Your task to perform on an android device: Open Yahoo.com Image 0: 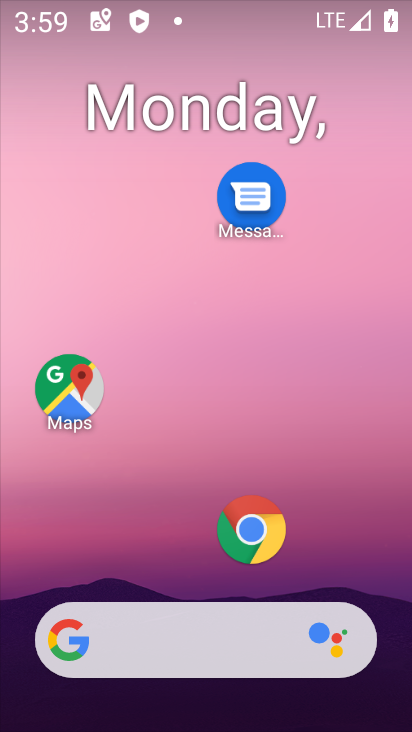
Step 0: click (266, 532)
Your task to perform on an android device: Open Yahoo.com Image 1: 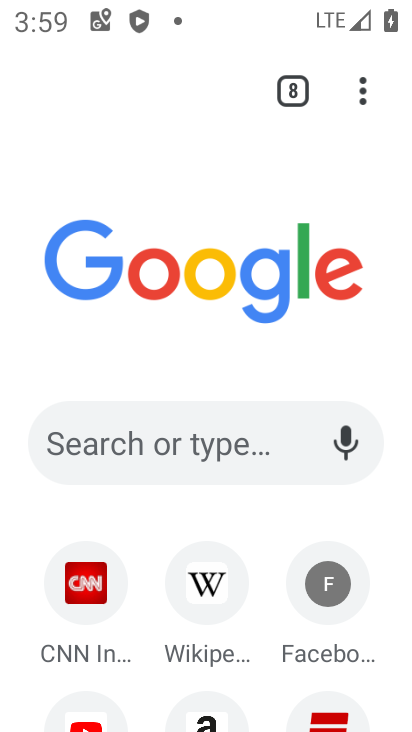
Step 1: click (285, 79)
Your task to perform on an android device: Open Yahoo.com Image 2: 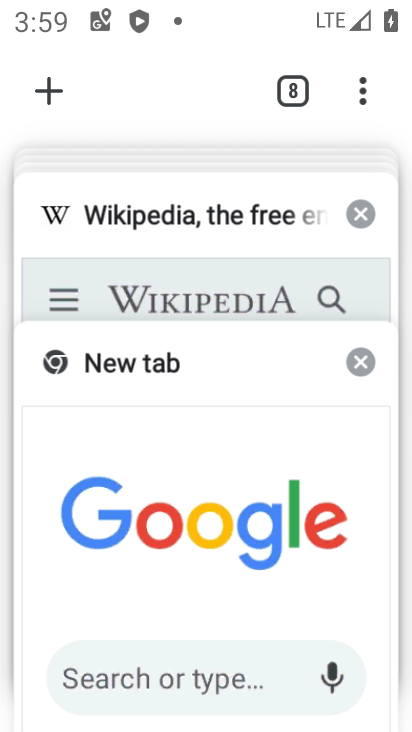
Step 2: click (374, 355)
Your task to perform on an android device: Open Yahoo.com Image 3: 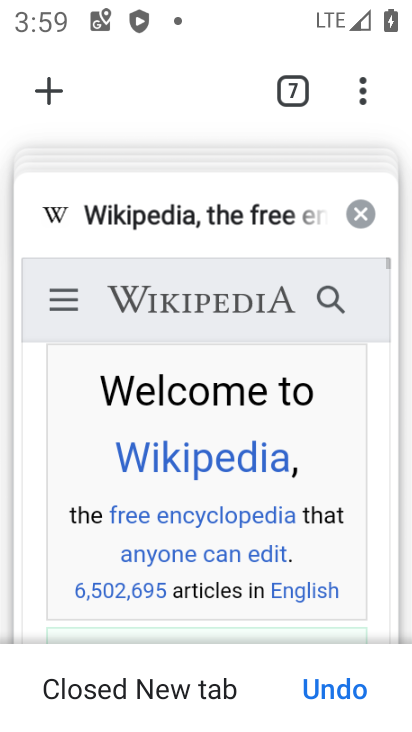
Step 3: click (365, 212)
Your task to perform on an android device: Open Yahoo.com Image 4: 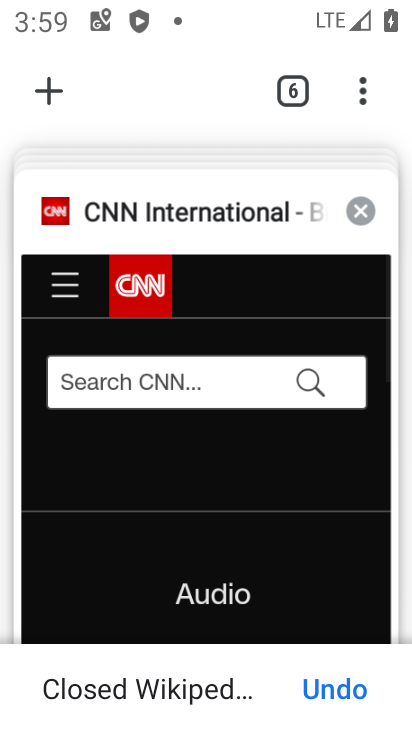
Step 4: click (364, 212)
Your task to perform on an android device: Open Yahoo.com Image 5: 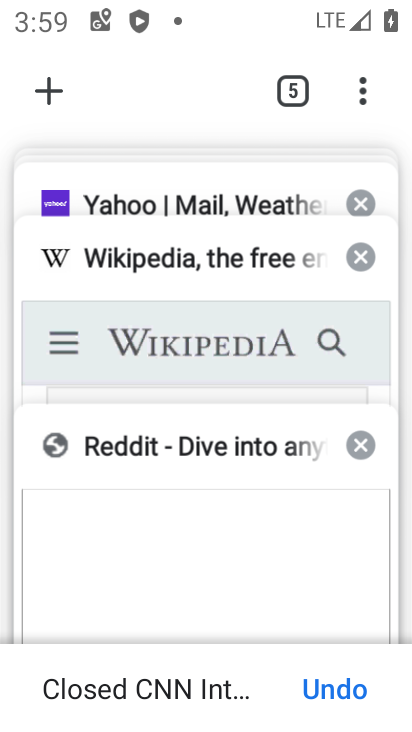
Step 5: drag from (182, 211) to (165, 562)
Your task to perform on an android device: Open Yahoo.com Image 6: 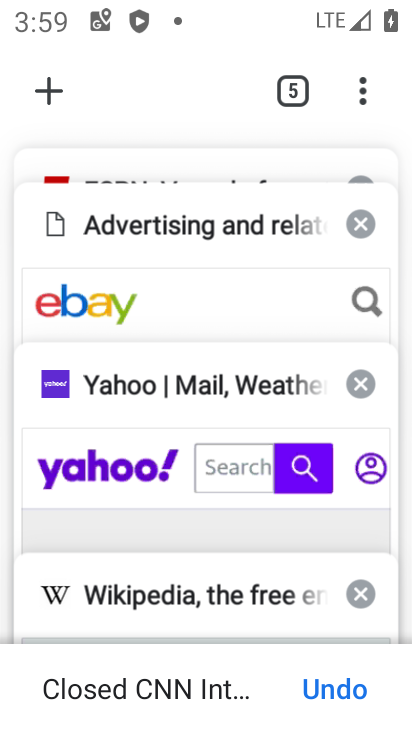
Step 6: click (113, 416)
Your task to perform on an android device: Open Yahoo.com Image 7: 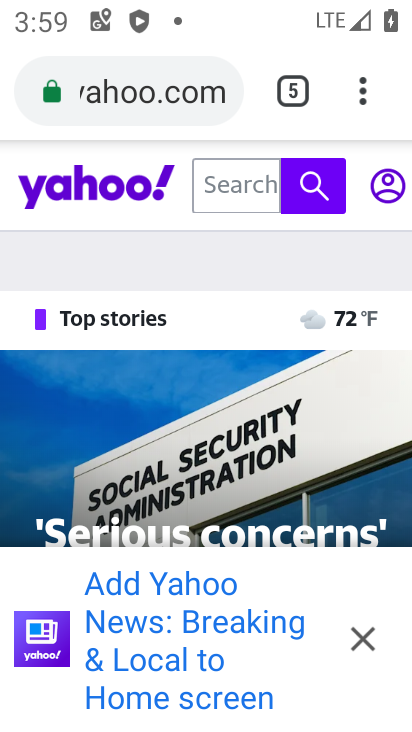
Step 7: task complete